Your task to perform on an android device: Search for sushi restaurants on Maps Image 0: 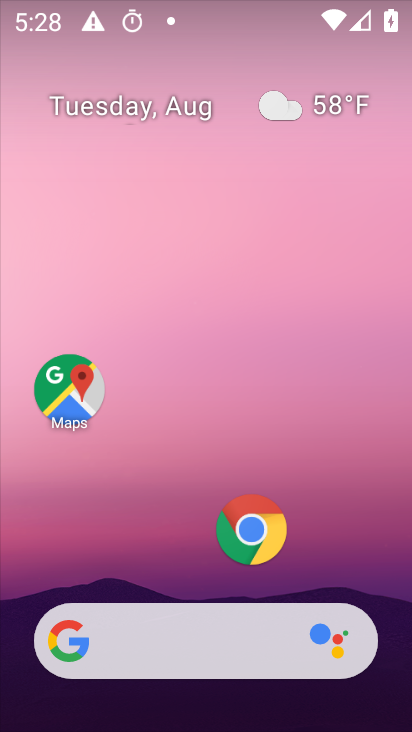
Step 0: click (69, 424)
Your task to perform on an android device: Search for sushi restaurants on Maps Image 1: 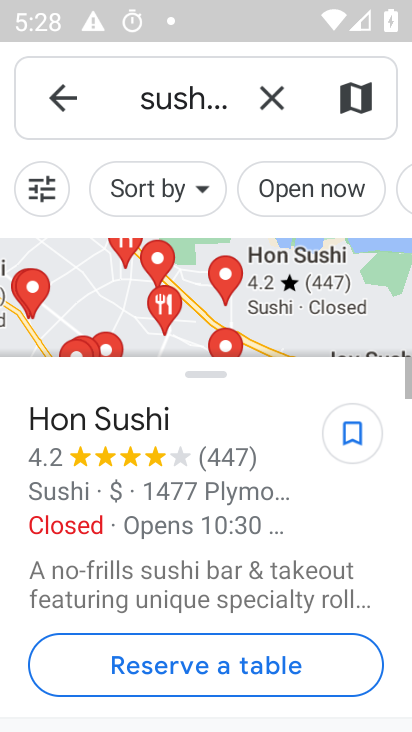
Step 1: task complete